Your task to perform on an android device: Add dell xps to the cart on costco, then select checkout. Image 0: 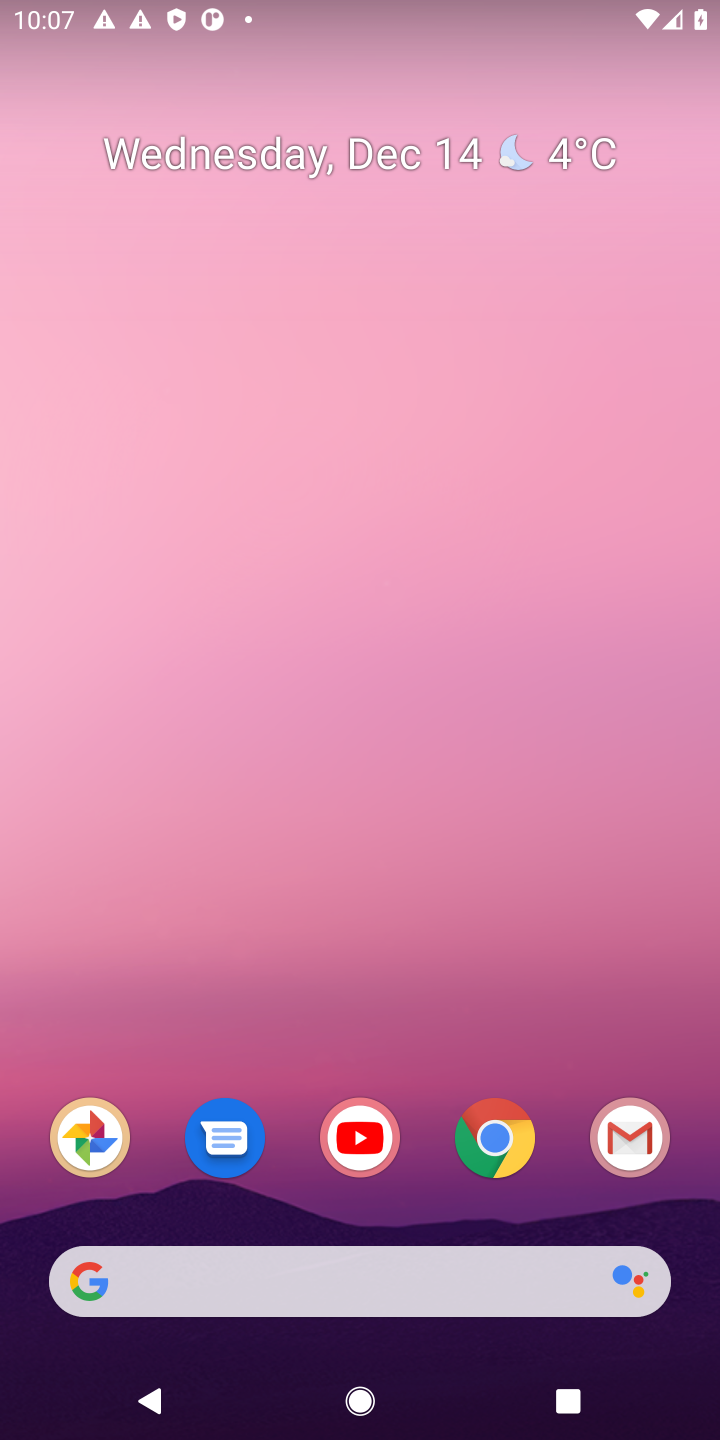
Step 0: click (486, 1135)
Your task to perform on an android device: Add dell xps to the cart on costco, then select checkout. Image 1: 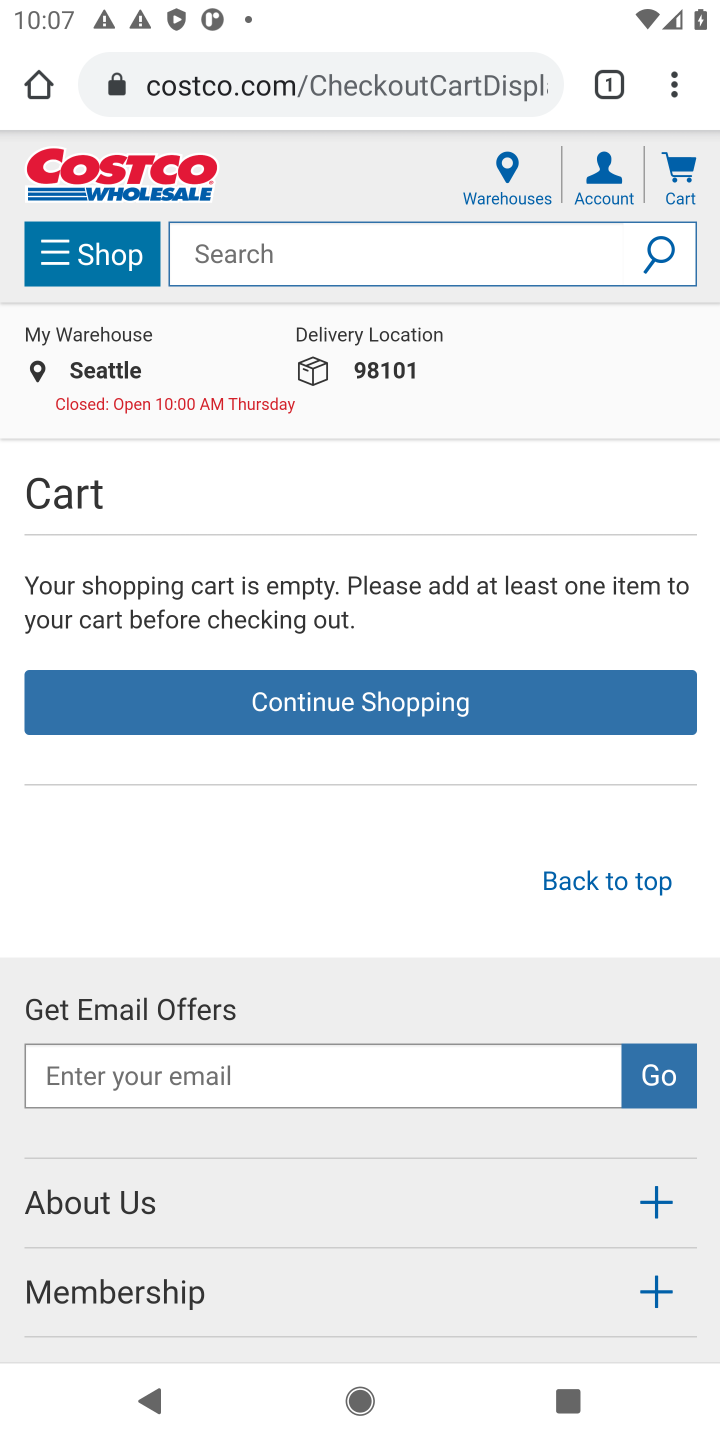
Step 1: click (215, 262)
Your task to perform on an android device: Add dell xps to the cart on costco, then select checkout. Image 2: 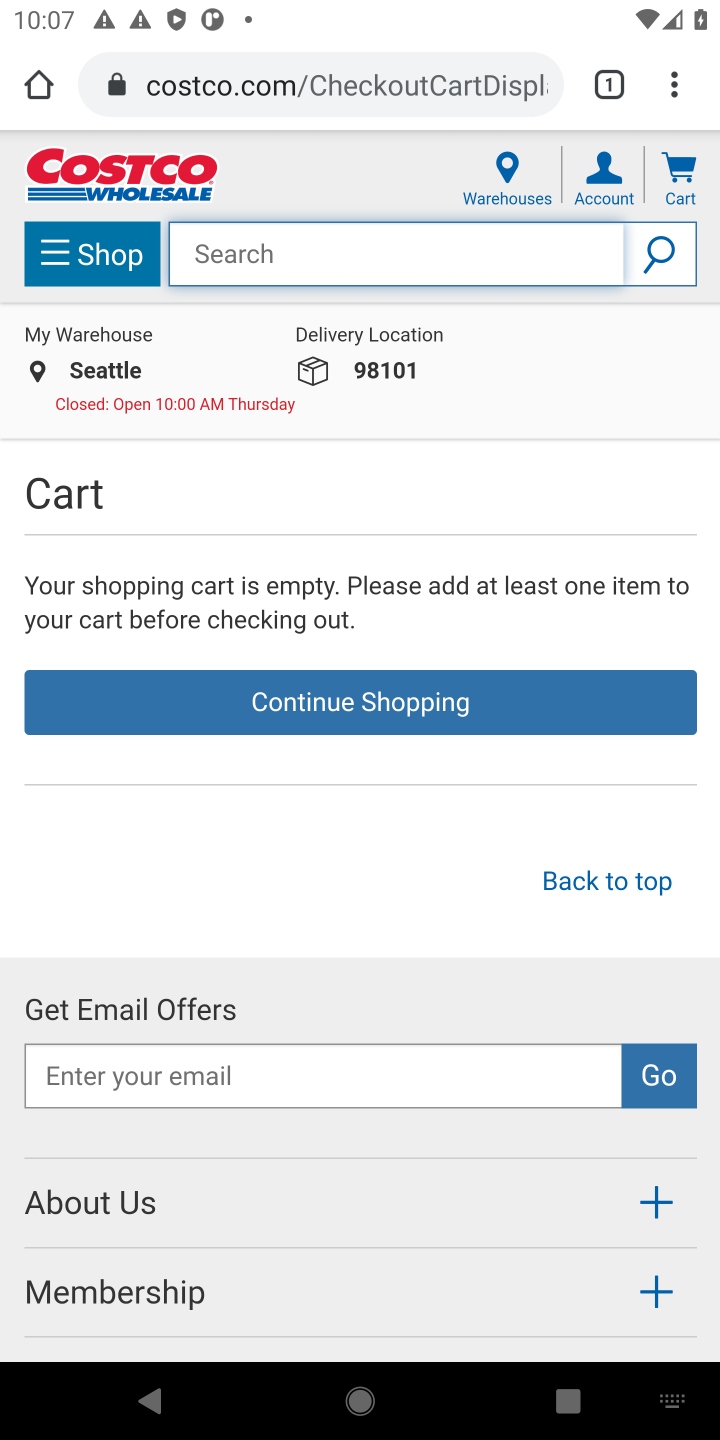
Step 2: type "dell xps"
Your task to perform on an android device: Add dell xps to the cart on costco, then select checkout. Image 3: 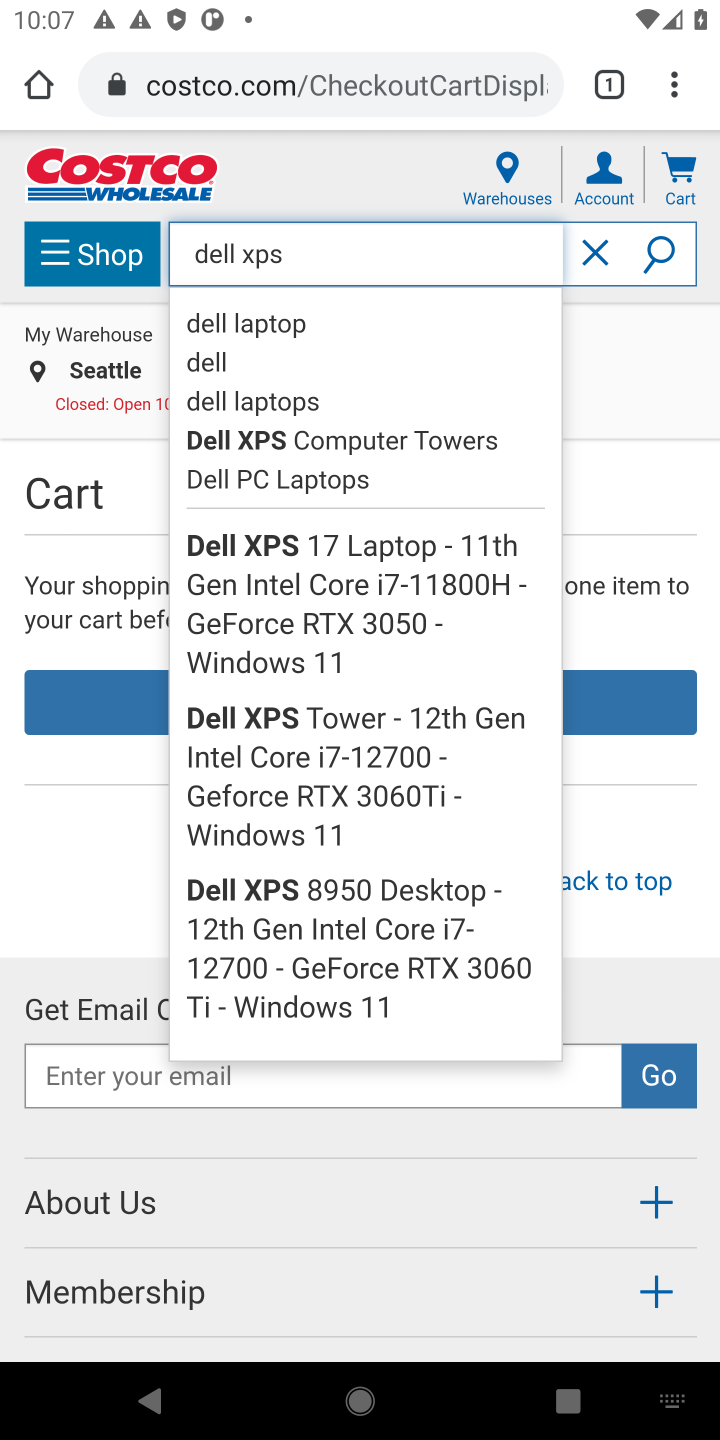
Step 3: click (650, 260)
Your task to perform on an android device: Add dell xps to the cart on costco, then select checkout. Image 4: 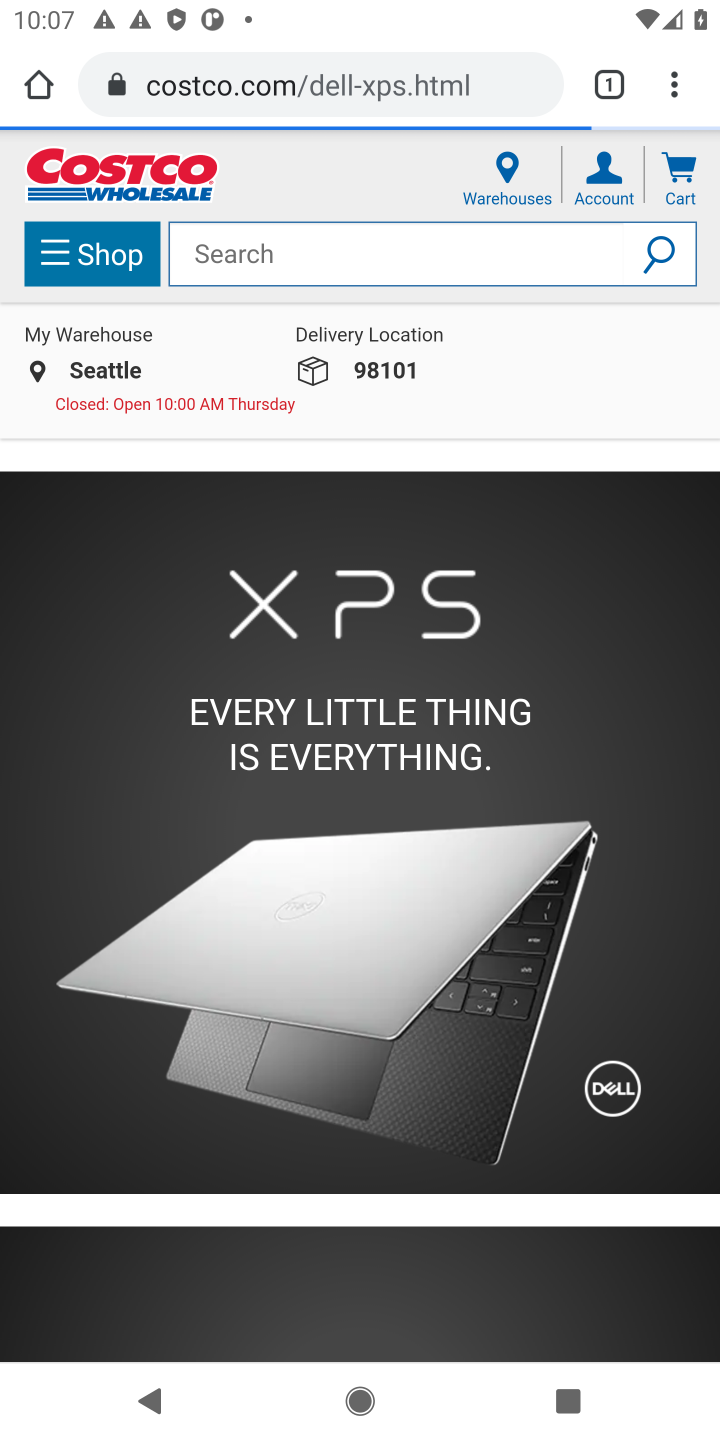
Step 4: task complete